Your task to perform on an android device: Go to display settings Image 0: 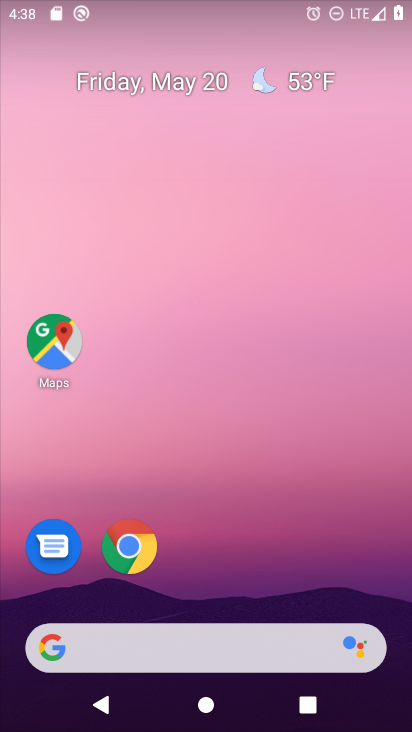
Step 0: drag from (245, 611) to (254, 156)
Your task to perform on an android device: Go to display settings Image 1: 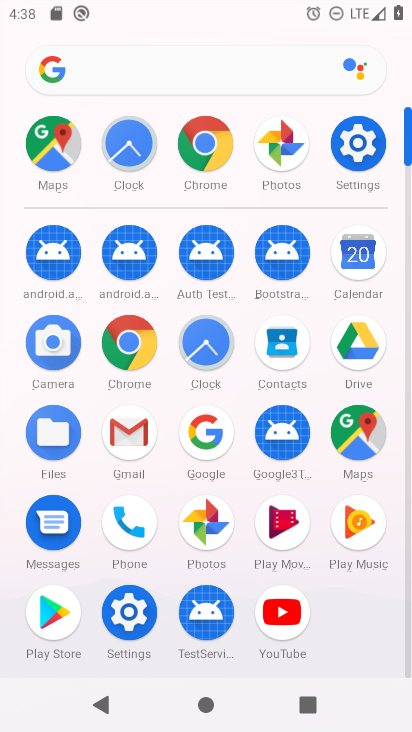
Step 1: click (370, 150)
Your task to perform on an android device: Go to display settings Image 2: 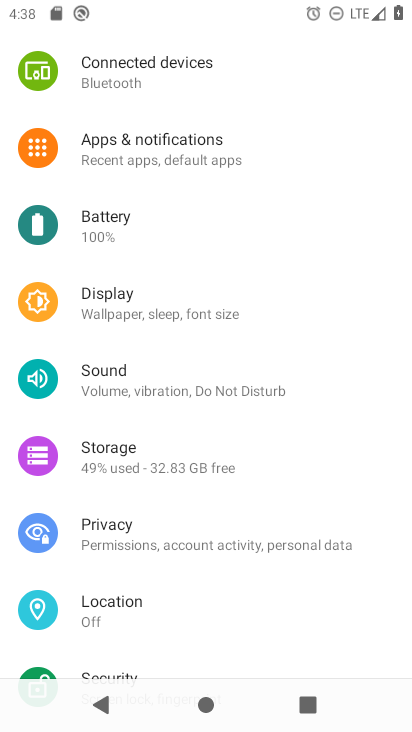
Step 2: click (193, 310)
Your task to perform on an android device: Go to display settings Image 3: 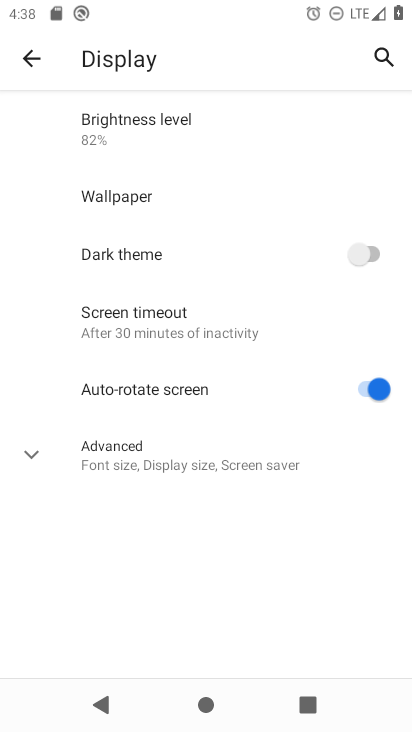
Step 3: task complete